Your task to perform on an android device: Find coffee shops on Maps Image 0: 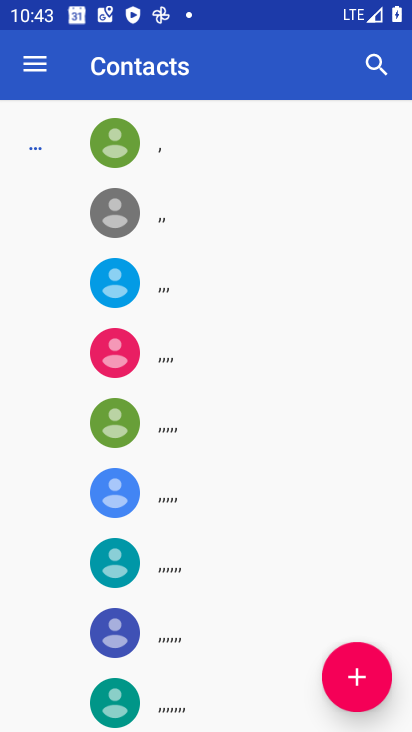
Step 0: press home button
Your task to perform on an android device: Find coffee shops on Maps Image 1: 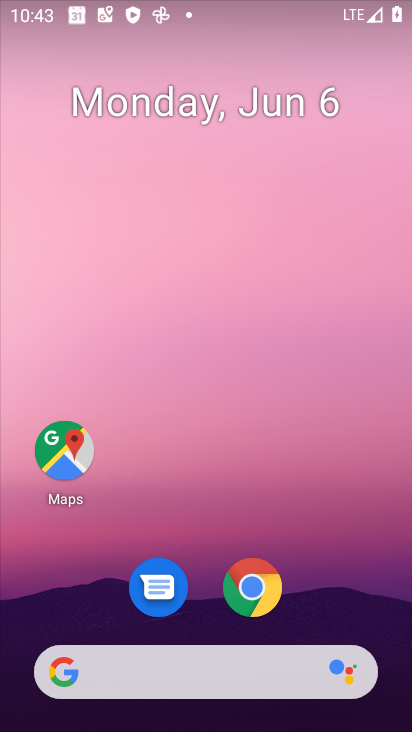
Step 1: click (60, 453)
Your task to perform on an android device: Find coffee shops on Maps Image 2: 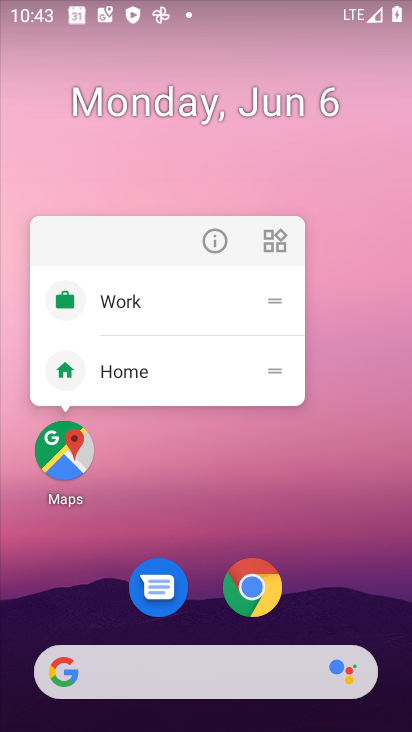
Step 2: click (60, 453)
Your task to perform on an android device: Find coffee shops on Maps Image 3: 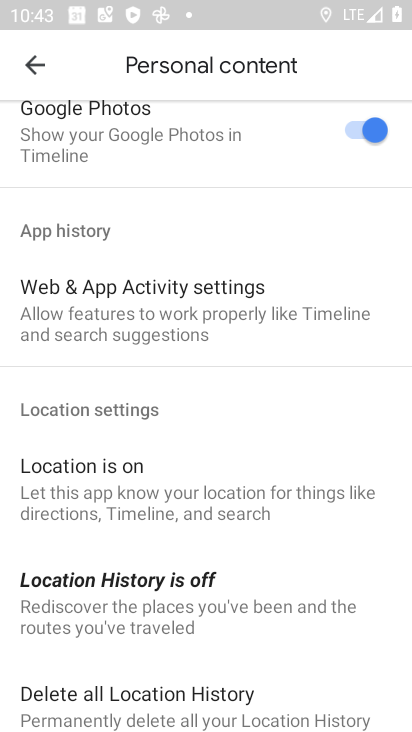
Step 3: click (34, 69)
Your task to perform on an android device: Find coffee shops on Maps Image 4: 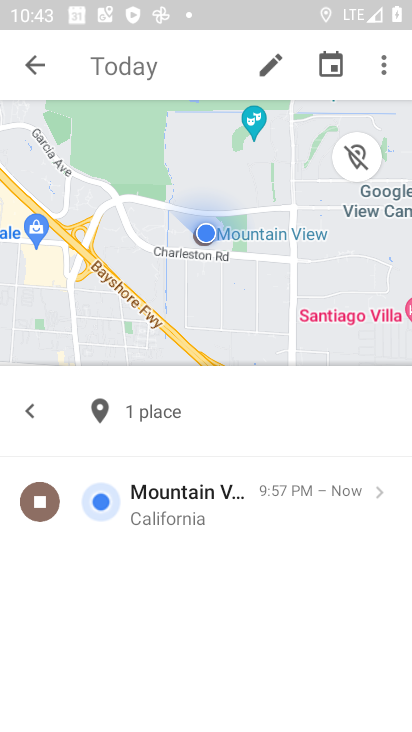
Step 4: click (30, 69)
Your task to perform on an android device: Find coffee shops on Maps Image 5: 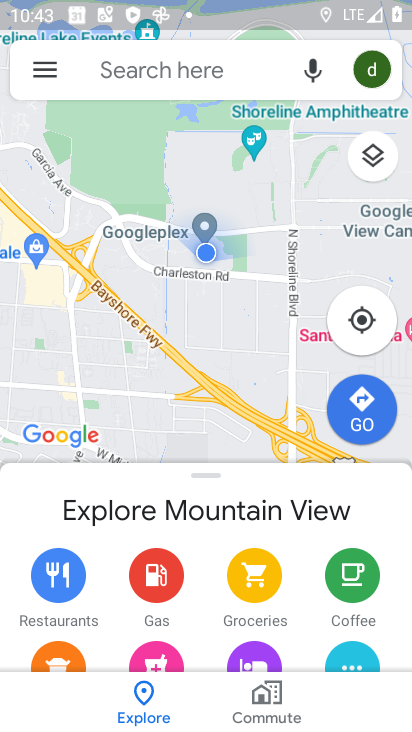
Step 5: click (228, 76)
Your task to perform on an android device: Find coffee shops on Maps Image 6: 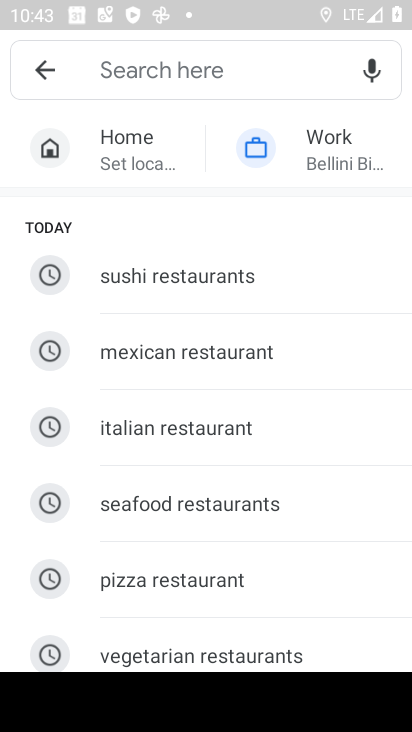
Step 6: drag from (351, 543) to (348, 31)
Your task to perform on an android device: Find coffee shops on Maps Image 7: 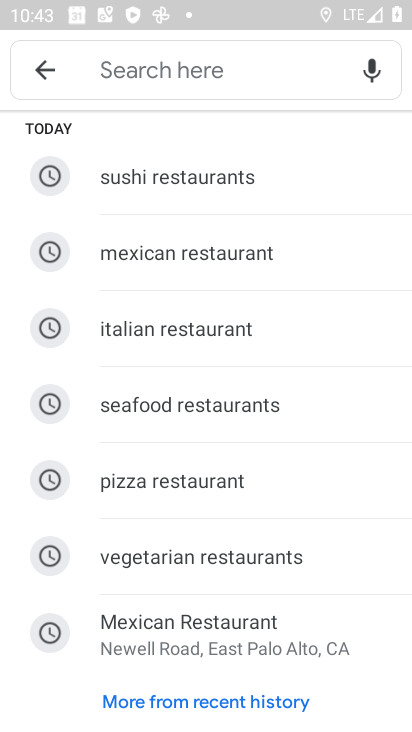
Step 7: click (276, 66)
Your task to perform on an android device: Find coffee shops on Maps Image 8: 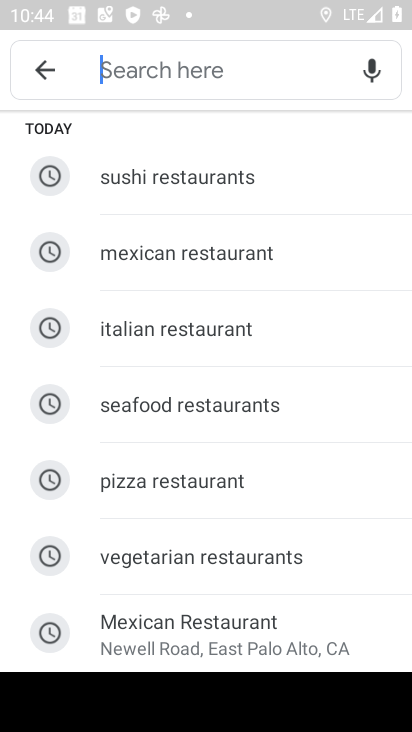
Step 8: type "coffee shops "
Your task to perform on an android device: Find coffee shops on Maps Image 9: 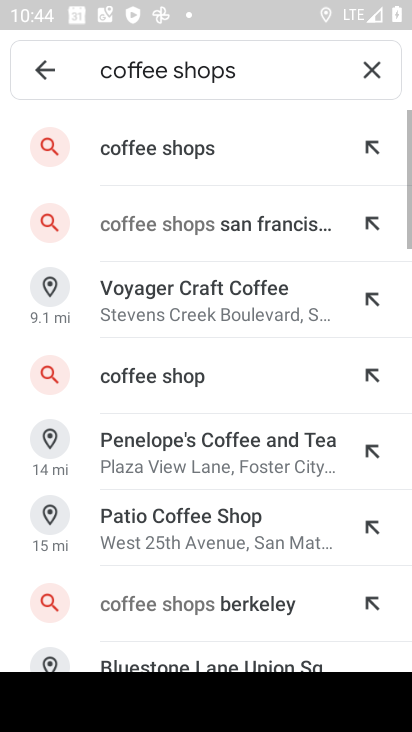
Step 9: click (277, 139)
Your task to perform on an android device: Find coffee shops on Maps Image 10: 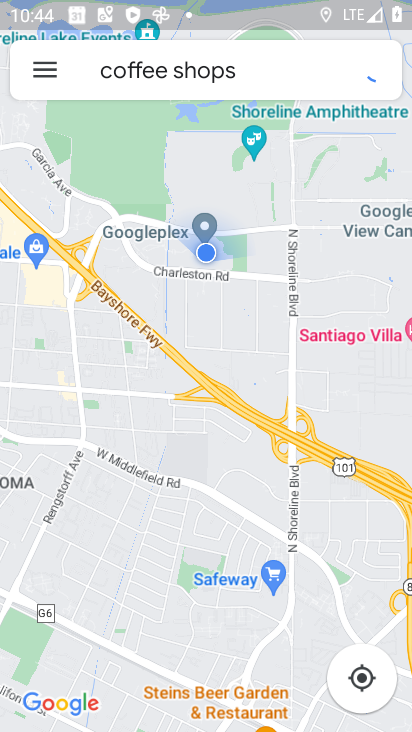
Step 10: task complete